Your task to perform on an android device: Check the weather Image 0: 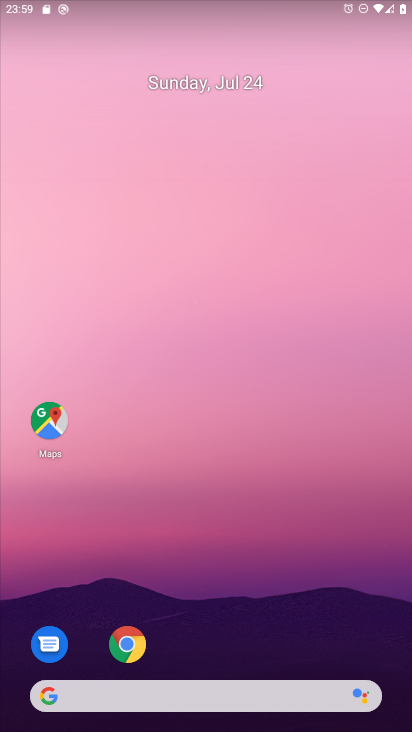
Step 0: click (138, 684)
Your task to perform on an android device: Check the weather Image 1: 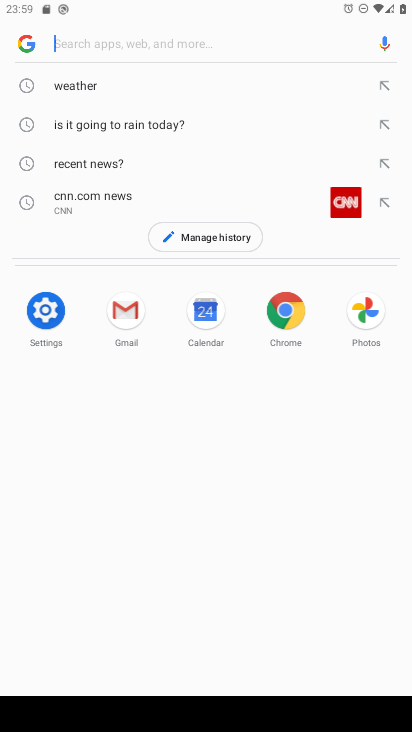
Step 1: click (74, 74)
Your task to perform on an android device: Check the weather Image 2: 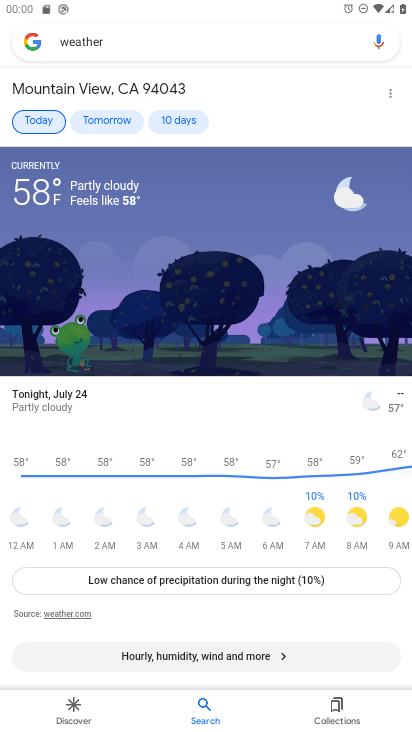
Step 2: task complete